Your task to perform on an android device: Open ESPN.com Image 0: 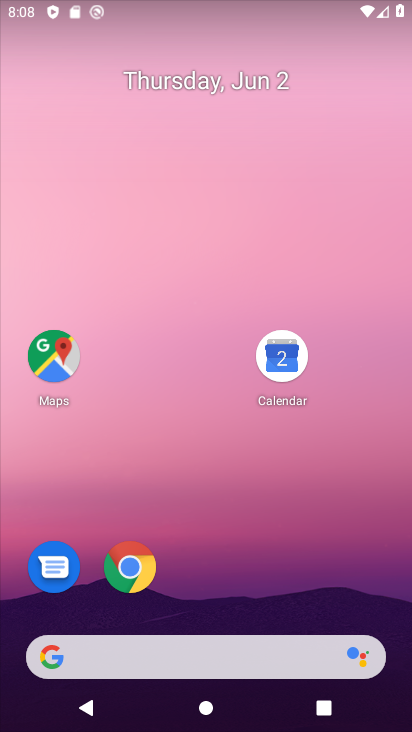
Step 0: click (136, 572)
Your task to perform on an android device: Open ESPN.com Image 1: 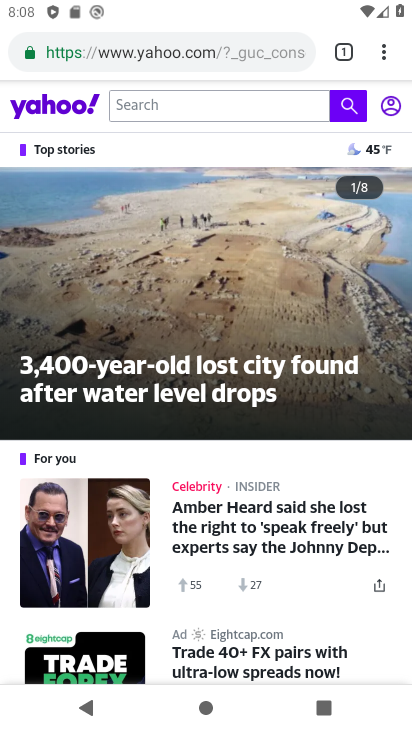
Step 1: click (190, 63)
Your task to perform on an android device: Open ESPN.com Image 2: 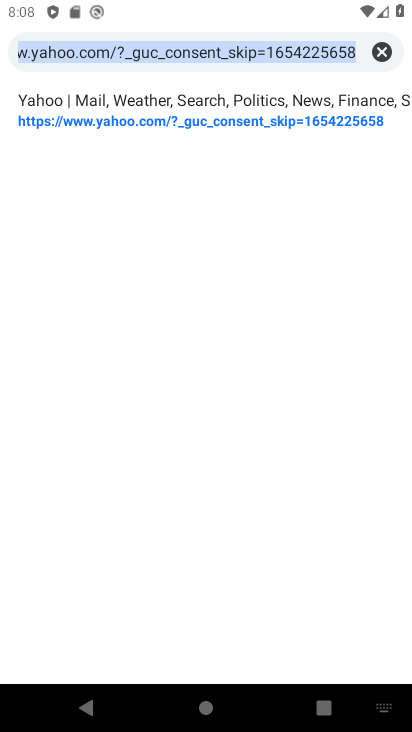
Step 2: click (383, 712)
Your task to perform on an android device: Open ESPN.com Image 3: 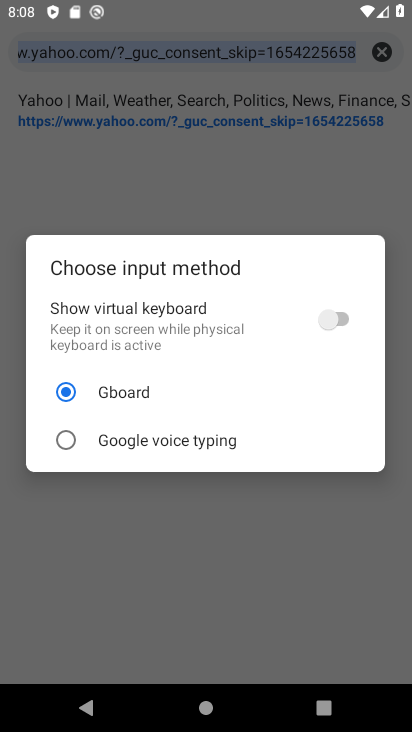
Step 3: click (337, 313)
Your task to perform on an android device: Open ESPN.com Image 4: 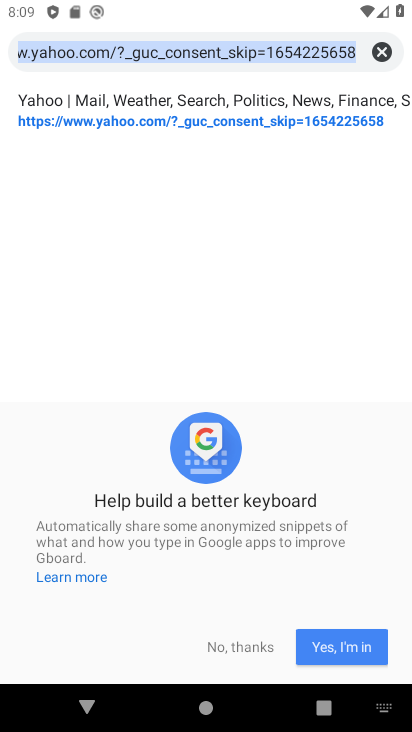
Step 4: click (229, 655)
Your task to perform on an android device: Open ESPN.com Image 5: 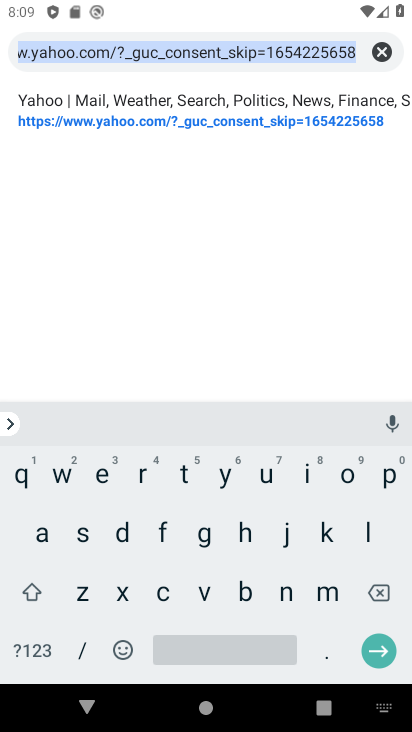
Step 5: click (380, 59)
Your task to perform on an android device: Open ESPN.com Image 6: 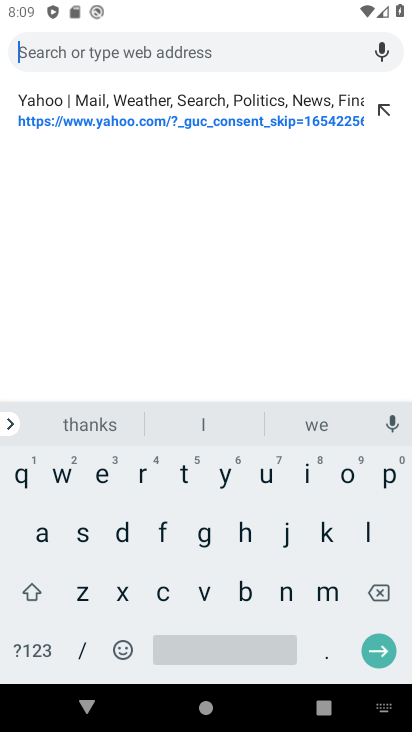
Step 6: click (105, 476)
Your task to perform on an android device: Open ESPN.com Image 7: 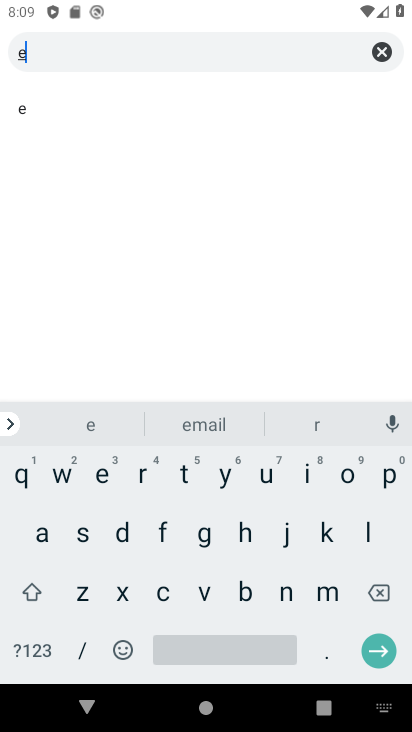
Step 7: click (82, 530)
Your task to perform on an android device: Open ESPN.com Image 8: 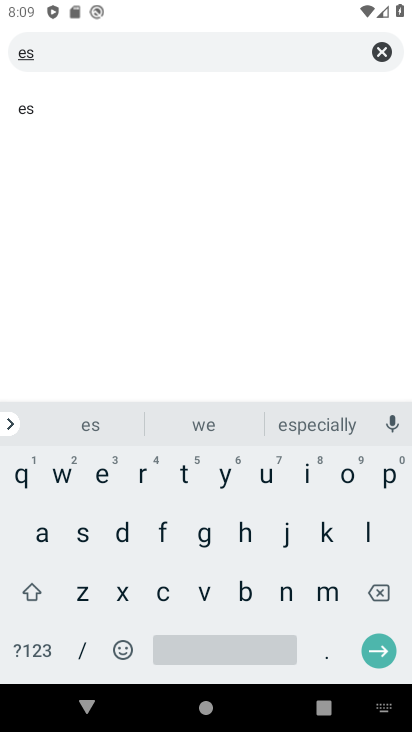
Step 8: click (396, 479)
Your task to perform on an android device: Open ESPN.com Image 9: 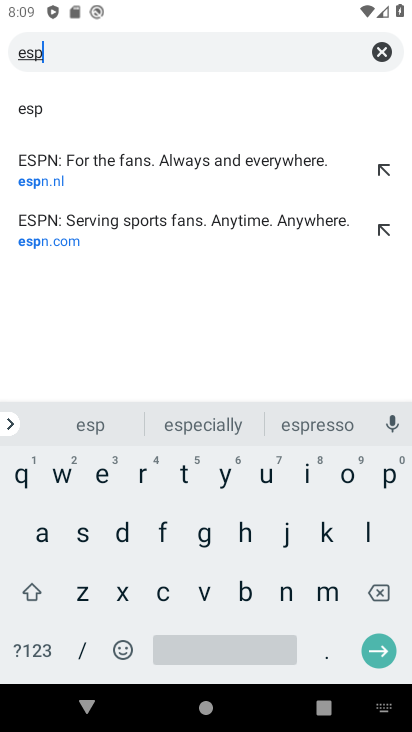
Step 9: click (287, 595)
Your task to perform on an android device: Open ESPN.com Image 10: 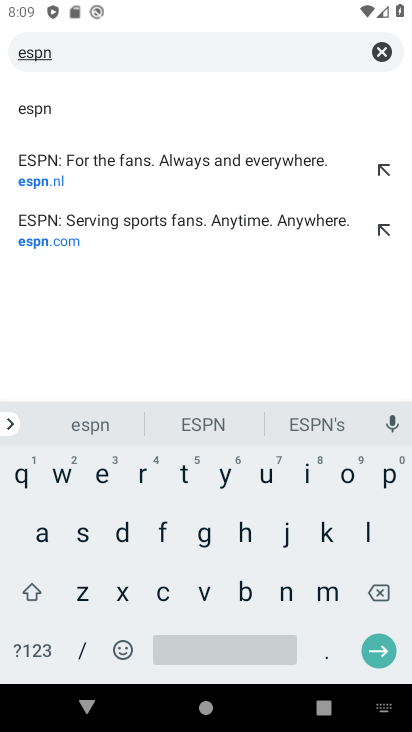
Step 10: click (327, 663)
Your task to perform on an android device: Open ESPN.com Image 11: 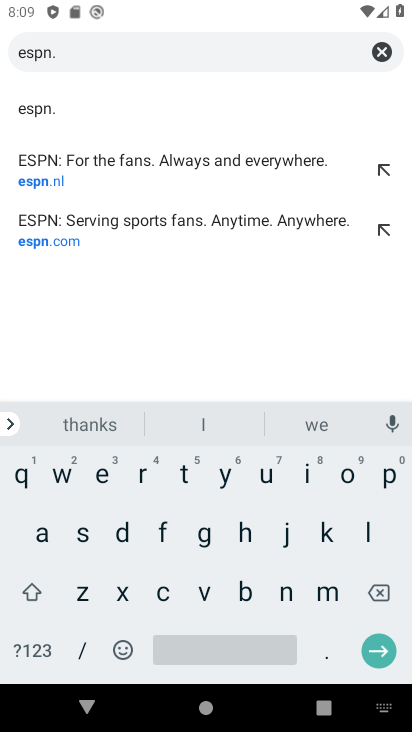
Step 11: click (158, 586)
Your task to perform on an android device: Open ESPN.com Image 12: 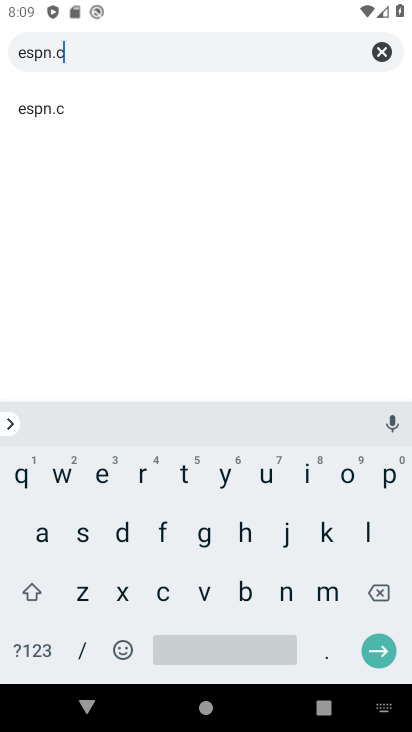
Step 12: click (347, 478)
Your task to perform on an android device: Open ESPN.com Image 13: 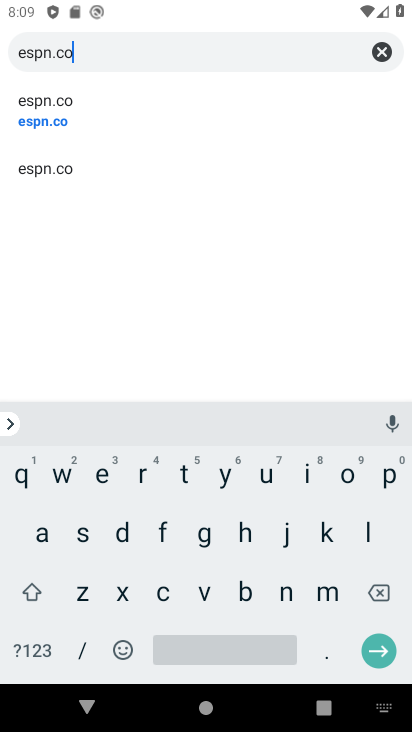
Step 13: click (325, 595)
Your task to perform on an android device: Open ESPN.com Image 14: 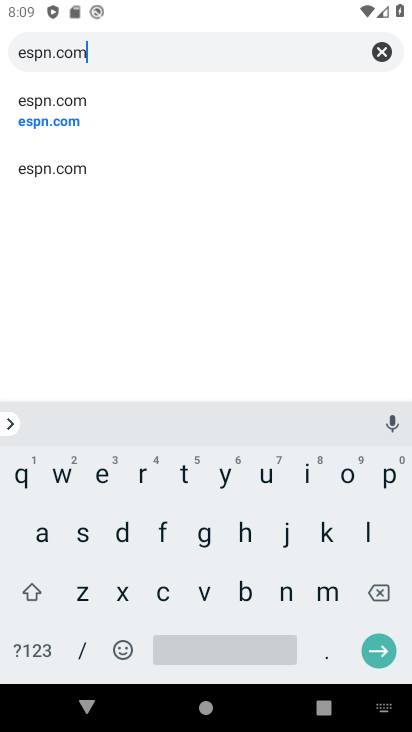
Step 14: click (378, 646)
Your task to perform on an android device: Open ESPN.com Image 15: 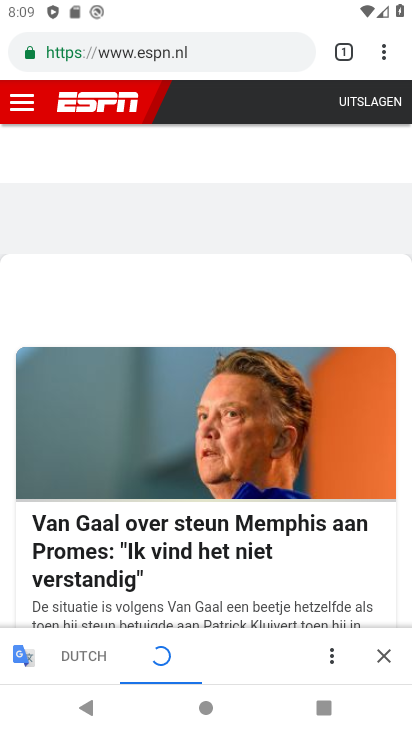
Step 15: task complete